Your task to perform on an android device: add a contact in the contacts app Image 0: 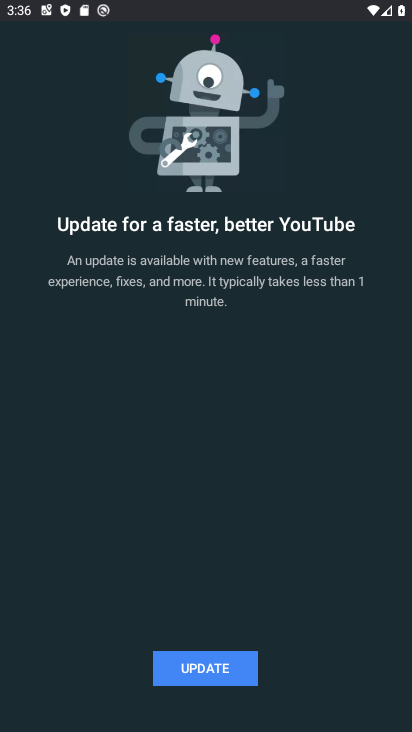
Step 0: press back button
Your task to perform on an android device: add a contact in the contacts app Image 1: 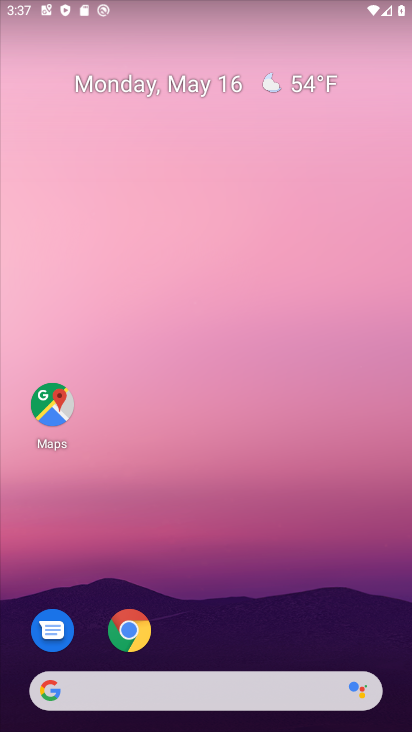
Step 1: drag from (222, 632) to (177, 182)
Your task to perform on an android device: add a contact in the contacts app Image 2: 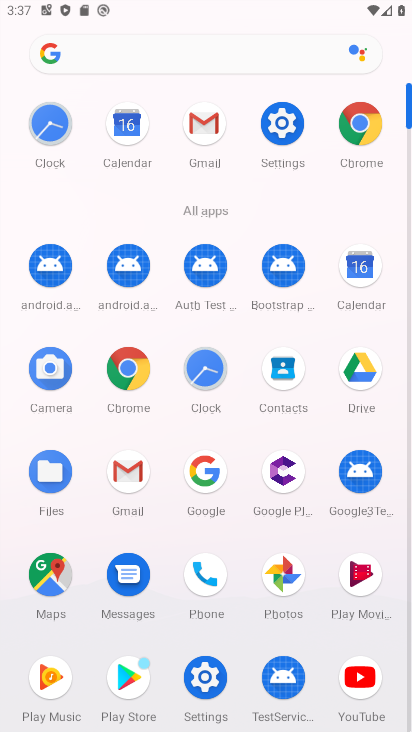
Step 2: click (288, 374)
Your task to perform on an android device: add a contact in the contacts app Image 3: 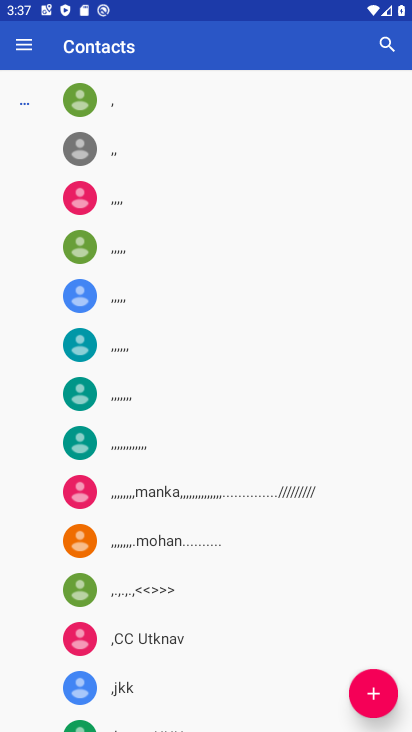
Step 3: click (377, 688)
Your task to perform on an android device: add a contact in the contacts app Image 4: 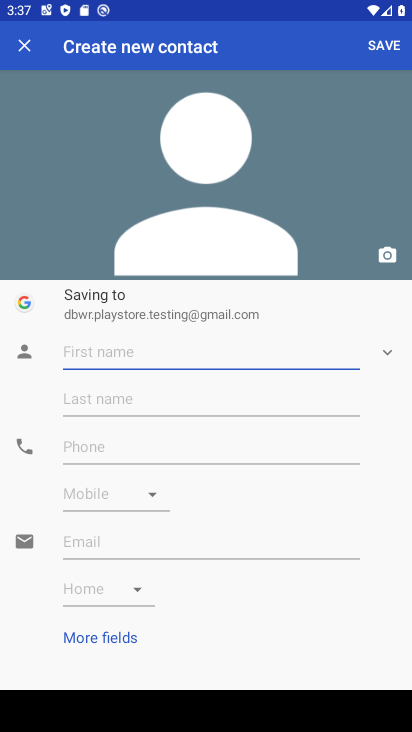
Step 4: click (212, 348)
Your task to perform on an android device: add a contact in the contacts app Image 5: 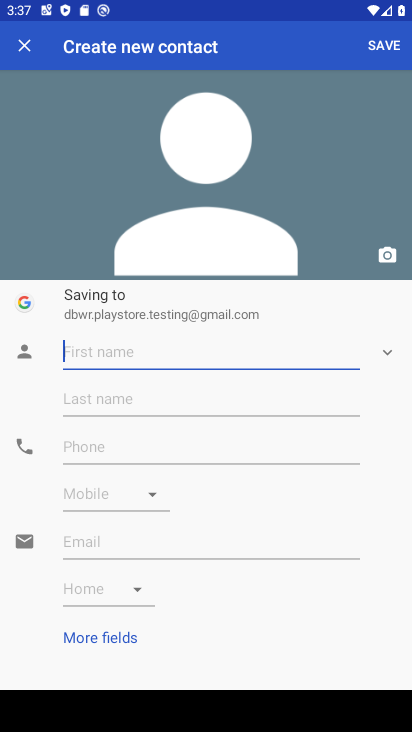
Step 5: type "hhgjhvhjv"
Your task to perform on an android device: add a contact in the contacts app Image 6: 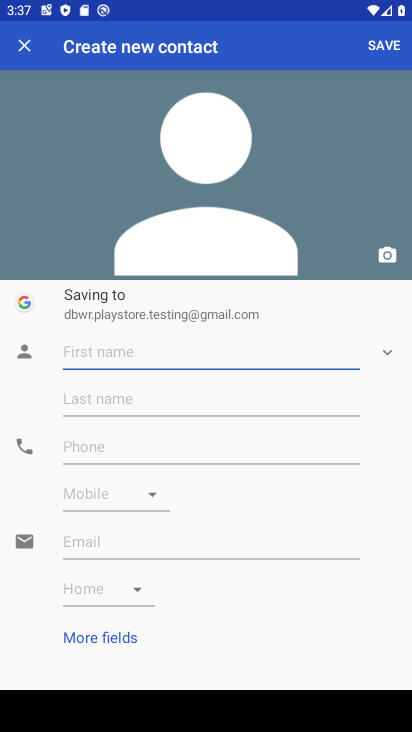
Step 6: click (247, 464)
Your task to perform on an android device: add a contact in the contacts app Image 7: 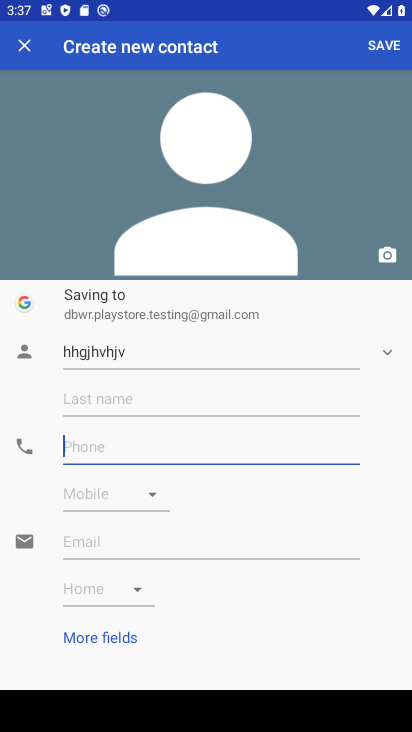
Step 7: type "9769698787"
Your task to perform on an android device: add a contact in the contacts app Image 8: 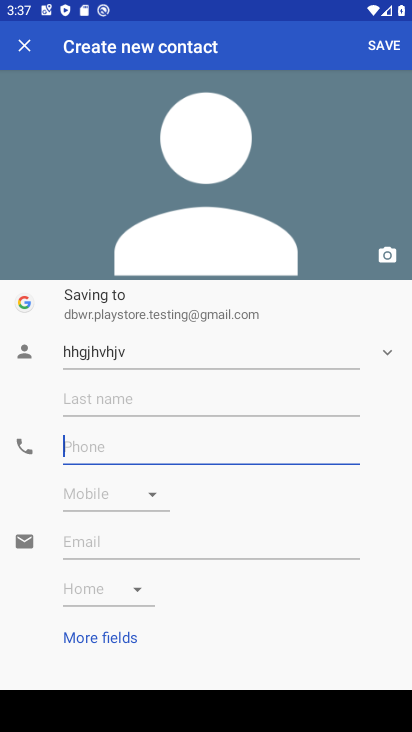
Step 8: click (402, 484)
Your task to perform on an android device: add a contact in the contacts app Image 9: 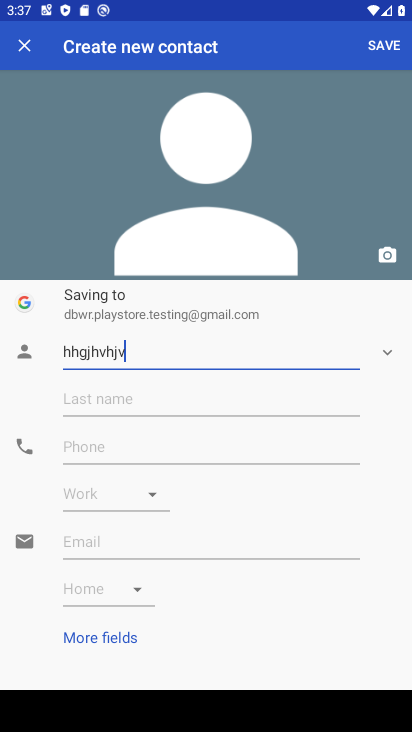
Step 9: task complete